Your task to perform on an android device: Open Google Chrome Image 0: 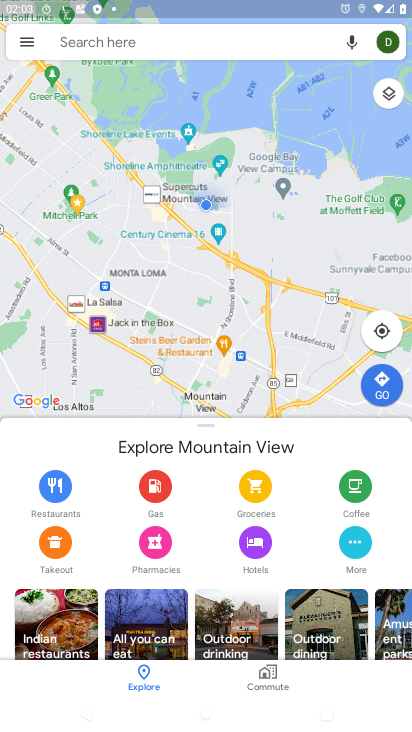
Step 0: press home button
Your task to perform on an android device: Open Google Chrome Image 1: 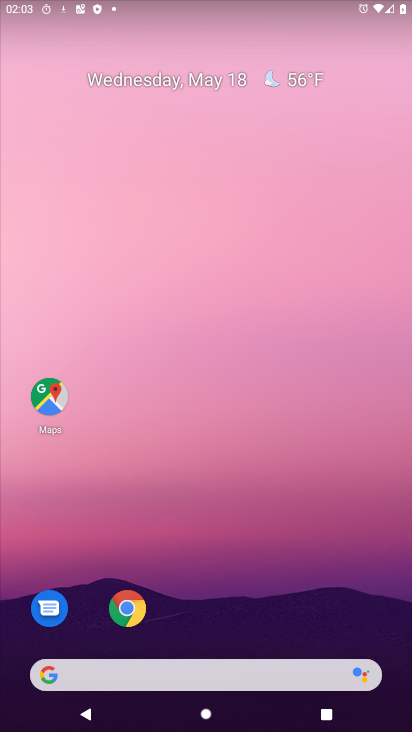
Step 1: drag from (267, 663) to (285, 210)
Your task to perform on an android device: Open Google Chrome Image 2: 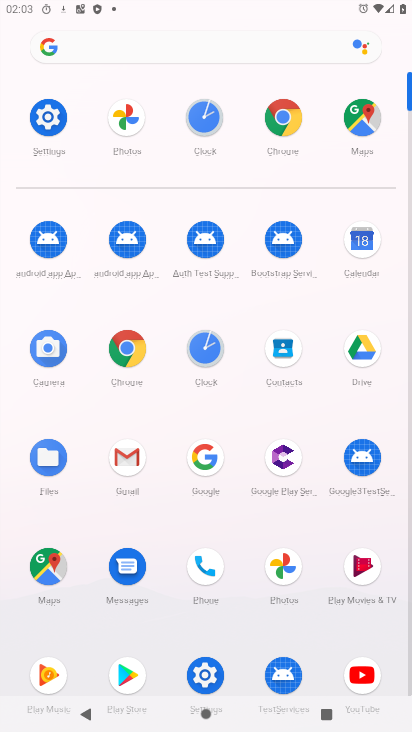
Step 2: click (293, 131)
Your task to perform on an android device: Open Google Chrome Image 3: 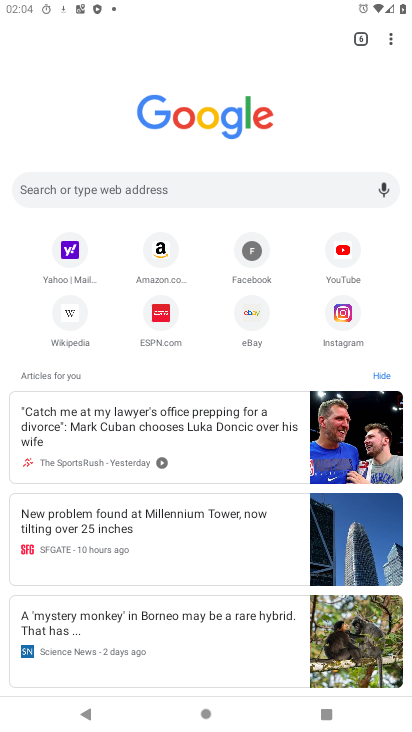
Step 3: task complete